Your task to perform on an android device: clear all cookies in the chrome app Image 0: 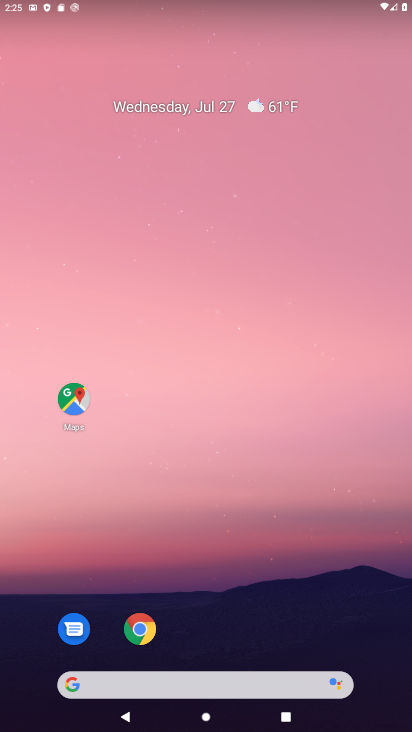
Step 0: click (133, 620)
Your task to perform on an android device: clear all cookies in the chrome app Image 1: 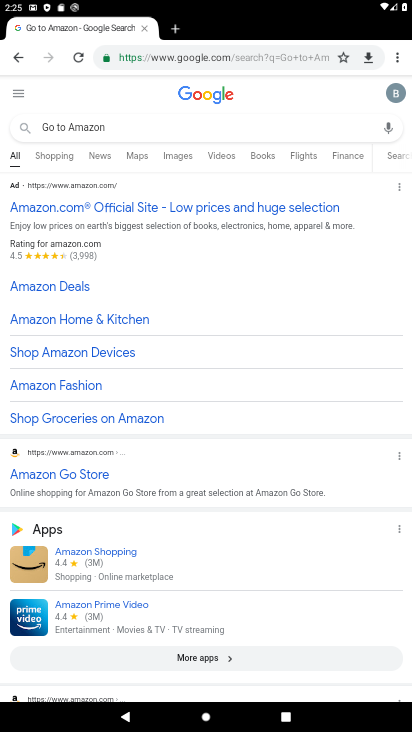
Step 1: drag from (400, 58) to (288, 349)
Your task to perform on an android device: clear all cookies in the chrome app Image 2: 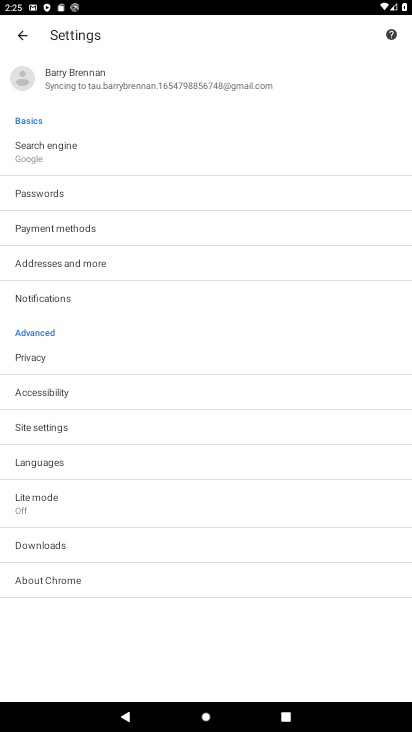
Step 2: click (30, 352)
Your task to perform on an android device: clear all cookies in the chrome app Image 3: 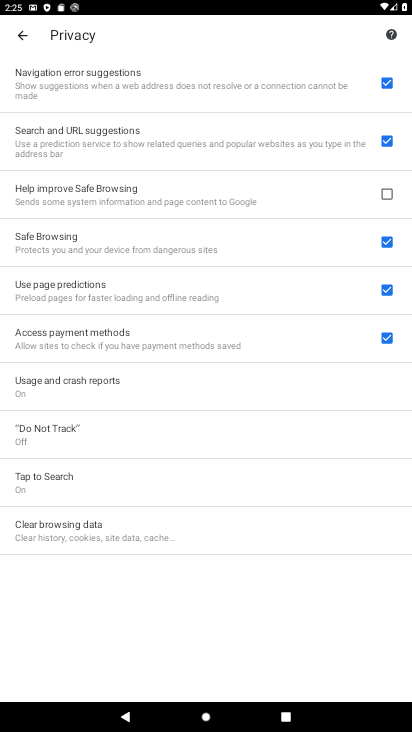
Step 3: click (154, 521)
Your task to perform on an android device: clear all cookies in the chrome app Image 4: 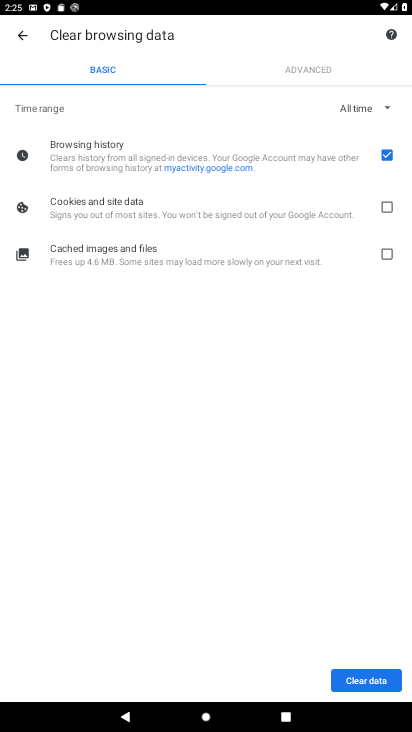
Step 4: click (380, 205)
Your task to perform on an android device: clear all cookies in the chrome app Image 5: 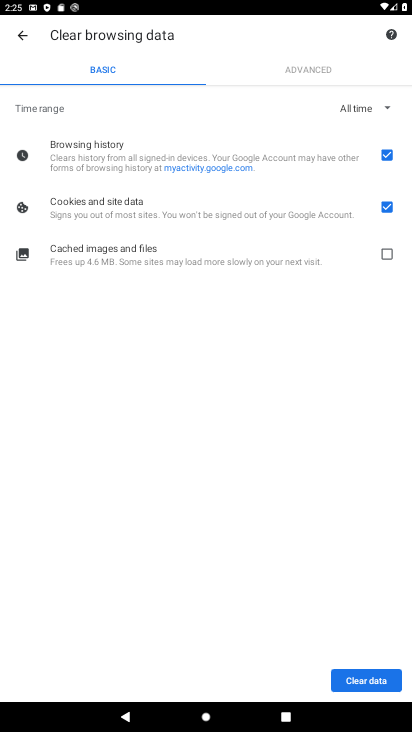
Step 5: click (358, 680)
Your task to perform on an android device: clear all cookies in the chrome app Image 6: 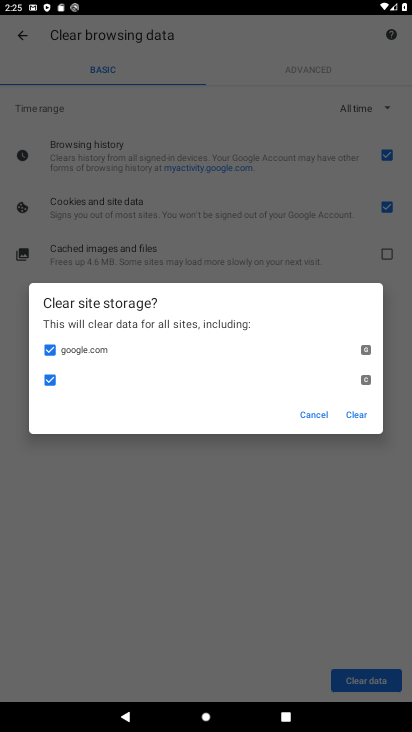
Step 6: click (356, 409)
Your task to perform on an android device: clear all cookies in the chrome app Image 7: 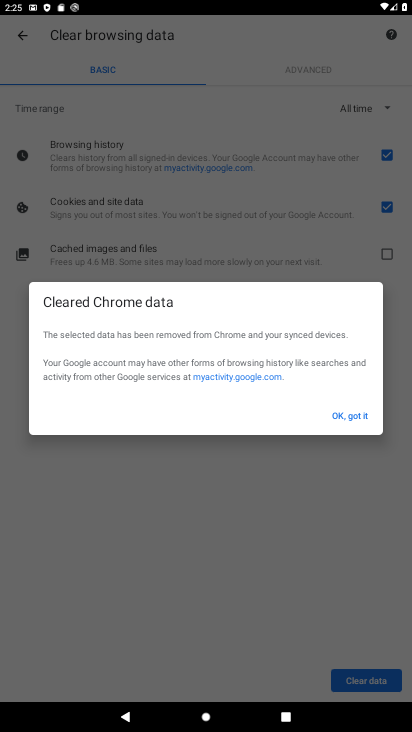
Step 7: click (344, 414)
Your task to perform on an android device: clear all cookies in the chrome app Image 8: 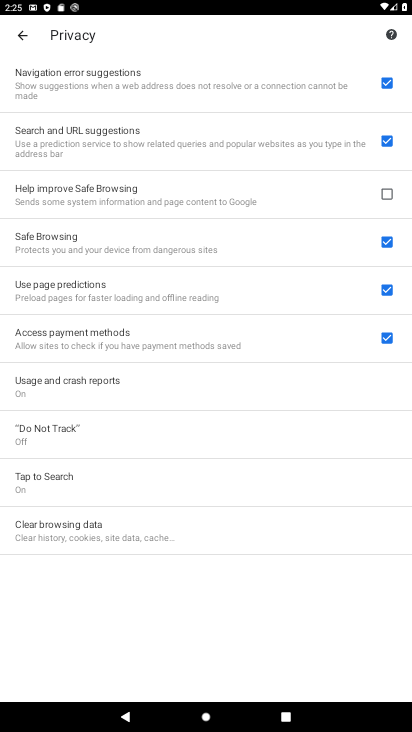
Step 8: task complete